Your task to perform on an android device: turn smart compose on in the gmail app Image 0: 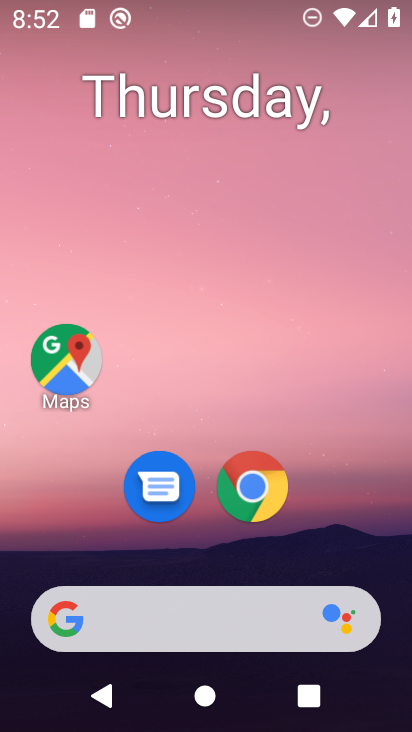
Step 0: drag from (180, 565) to (242, 0)
Your task to perform on an android device: turn smart compose on in the gmail app Image 1: 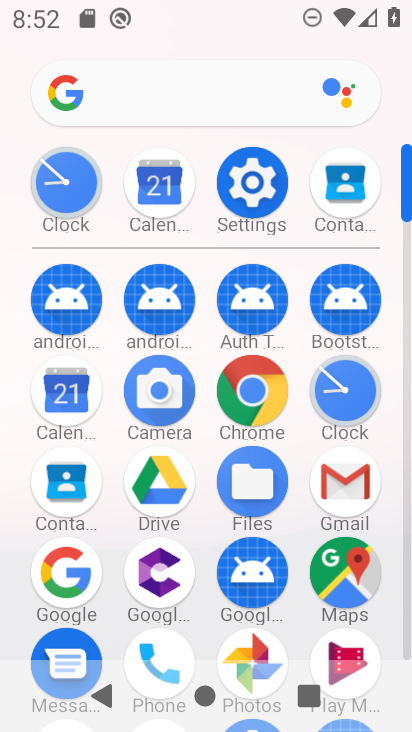
Step 1: click (334, 476)
Your task to perform on an android device: turn smart compose on in the gmail app Image 2: 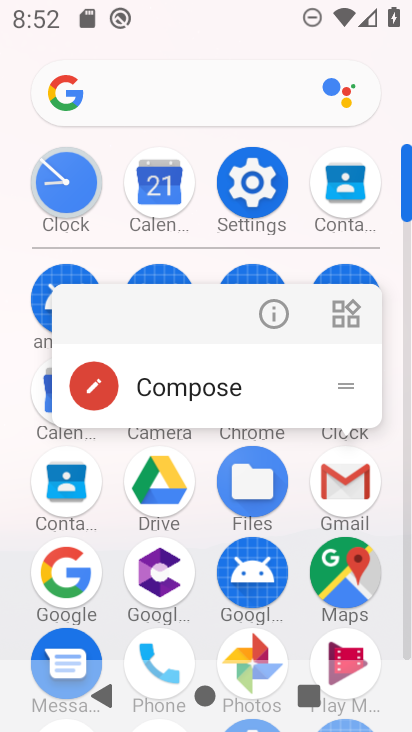
Step 2: click (333, 489)
Your task to perform on an android device: turn smart compose on in the gmail app Image 3: 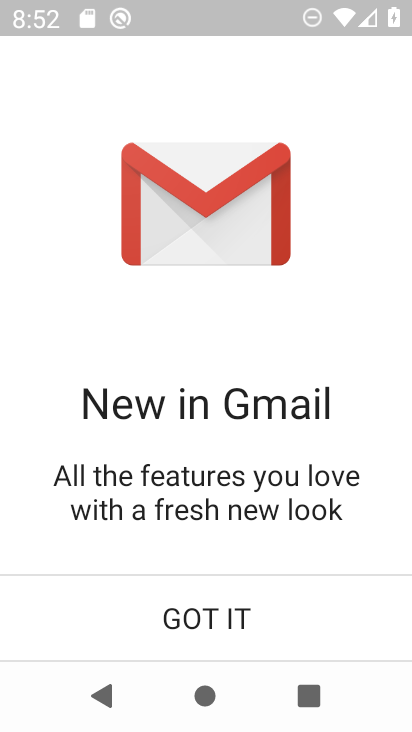
Step 3: click (187, 615)
Your task to perform on an android device: turn smart compose on in the gmail app Image 4: 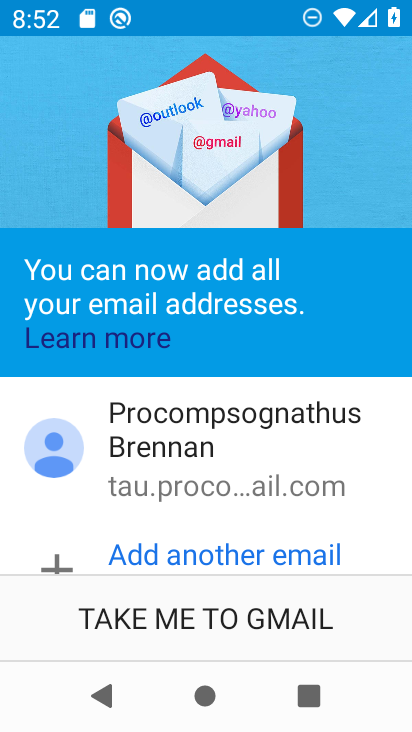
Step 4: click (190, 611)
Your task to perform on an android device: turn smart compose on in the gmail app Image 5: 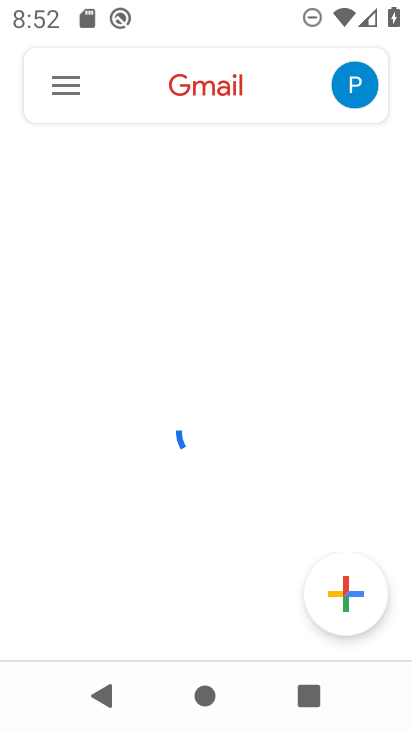
Step 5: click (63, 86)
Your task to perform on an android device: turn smart compose on in the gmail app Image 6: 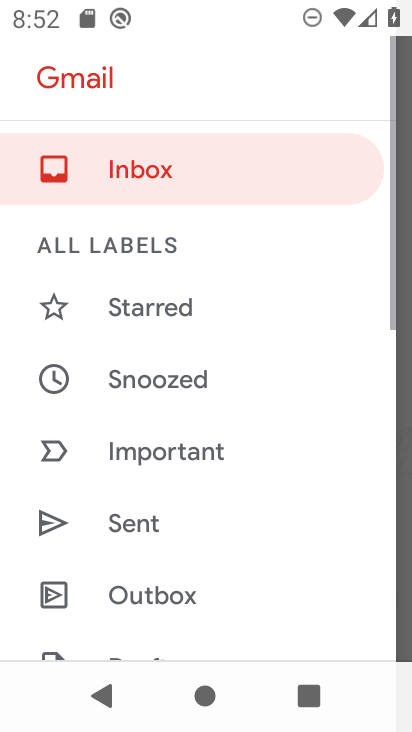
Step 6: drag from (134, 595) to (241, 66)
Your task to perform on an android device: turn smart compose on in the gmail app Image 7: 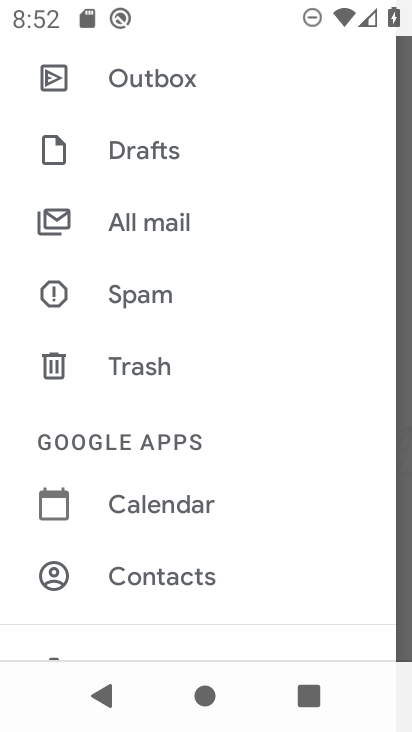
Step 7: drag from (145, 599) to (257, 51)
Your task to perform on an android device: turn smart compose on in the gmail app Image 8: 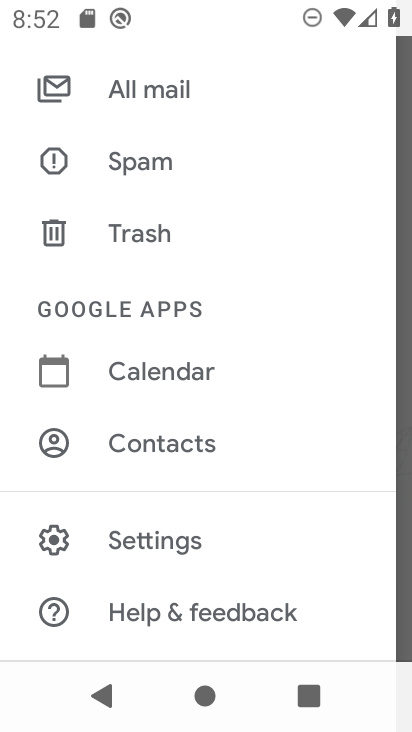
Step 8: click (131, 534)
Your task to perform on an android device: turn smart compose on in the gmail app Image 9: 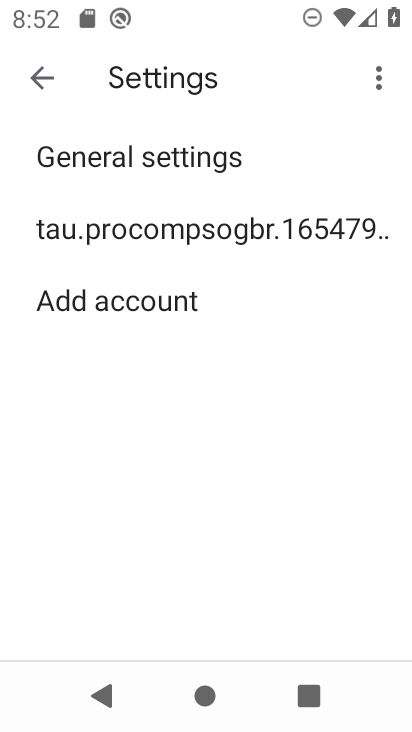
Step 9: drag from (162, 564) to (279, 173)
Your task to perform on an android device: turn smart compose on in the gmail app Image 10: 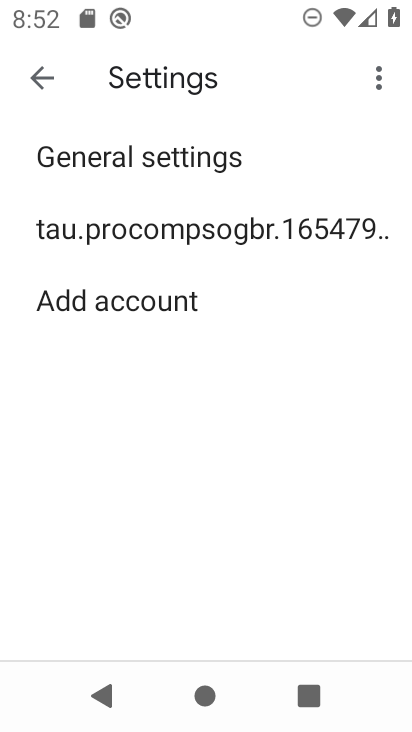
Step 10: click (196, 237)
Your task to perform on an android device: turn smart compose on in the gmail app Image 11: 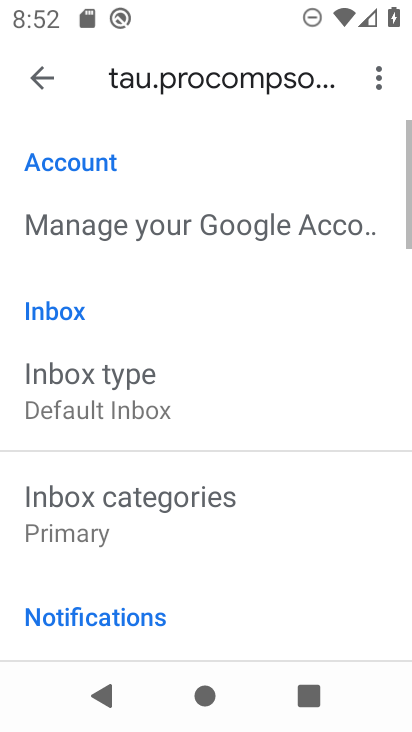
Step 11: task complete